Your task to perform on an android device: Go to sound settings Image 0: 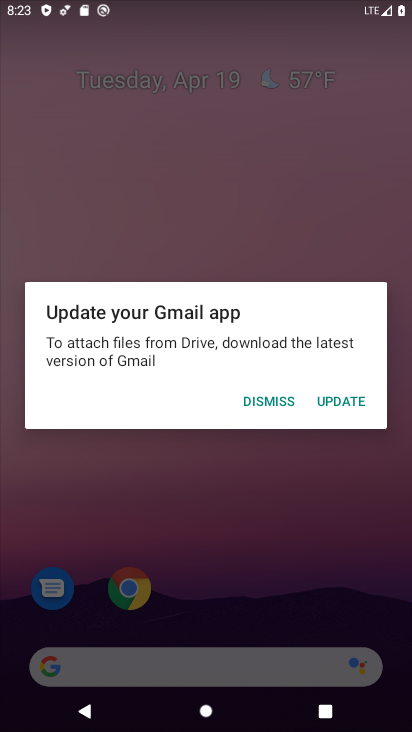
Step 0: press home button
Your task to perform on an android device: Go to sound settings Image 1: 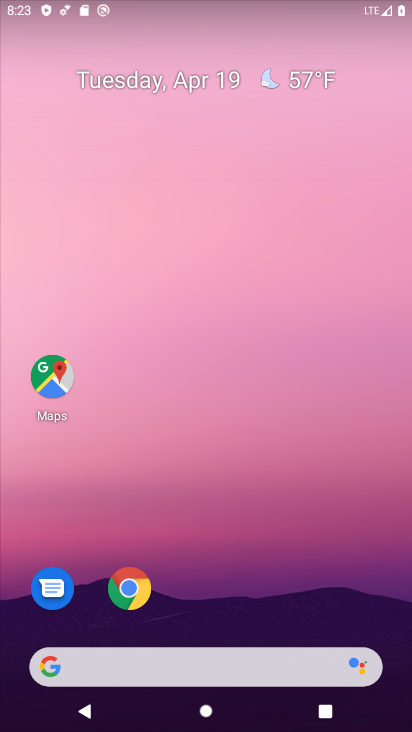
Step 1: drag from (295, 605) to (252, 248)
Your task to perform on an android device: Go to sound settings Image 2: 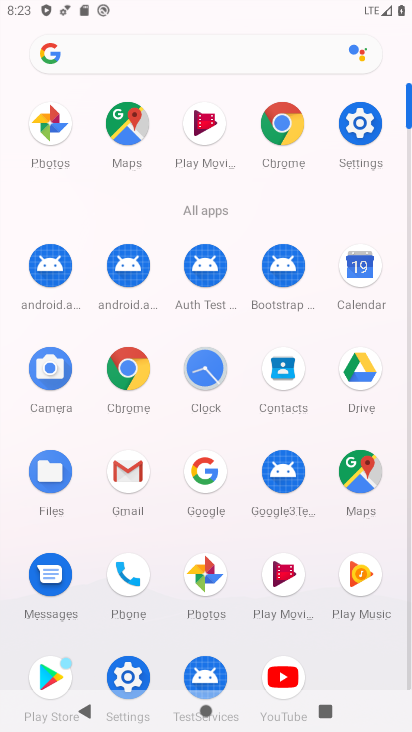
Step 2: click (354, 128)
Your task to perform on an android device: Go to sound settings Image 3: 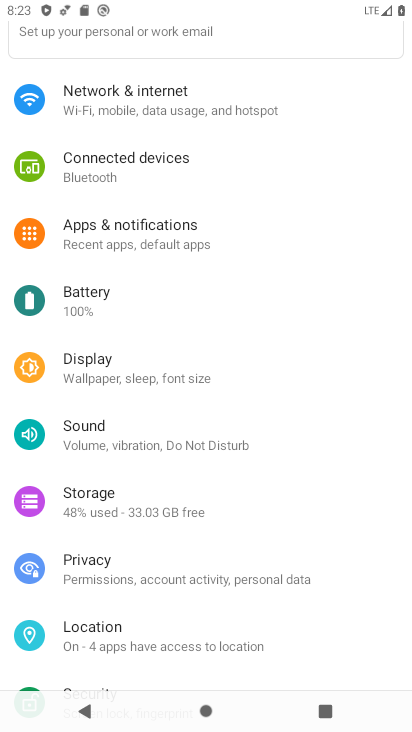
Step 3: click (128, 442)
Your task to perform on an android device: Go to sound settings Image 4: 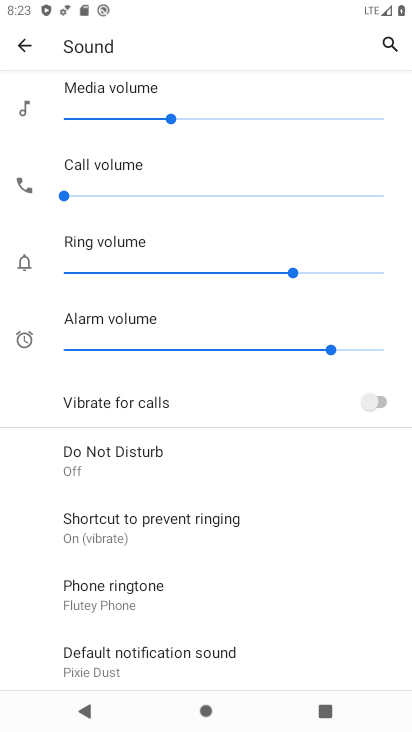
Step 4: task complete